Your task to perform on an android device: Open calendar and show me the third week of next month Image 0: 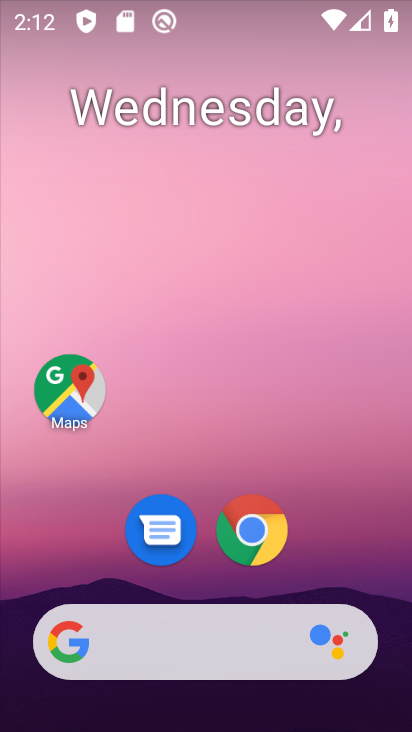
Step 0: drag from (219, 482) to (222, 10)
Your task to perform on an android device: Open calendar and show me the third week of next month Image 1: 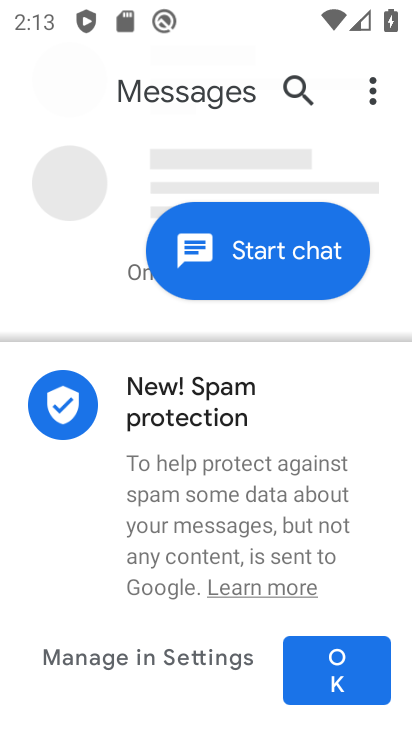
Step 1: press home button
Your task to perform on an android device: Open calendar and show me the third week of next month Image 2: 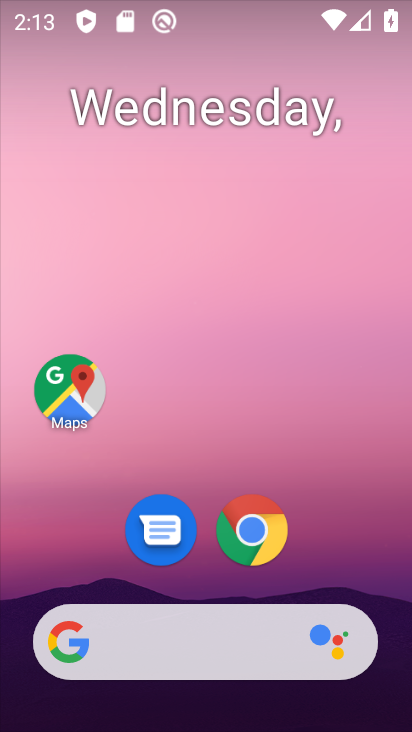
Step 2: click (229, 117)
Your task to perform on an android device: Open calendar and show me the third week of next month Image 3: 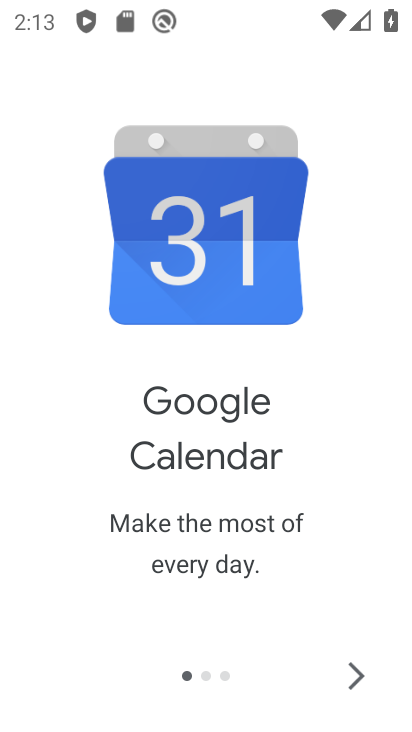
Step 3: click (366, 660)
Your task to perform on an android device: Open calendar and show me the third week of next month Image 4: 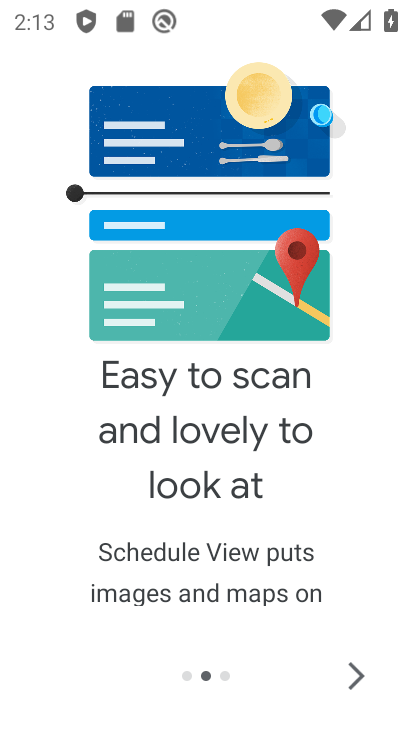
Step 4: click (366, 660)
Your task to perform on an android device: Open calendar and show me the third week of next month Image 5: 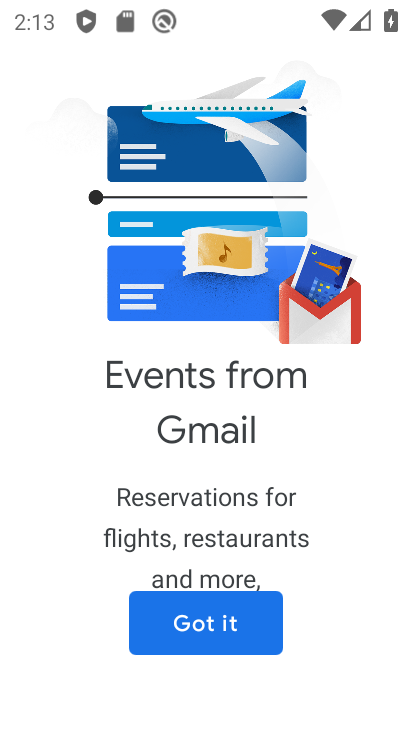
Step 5: click (185, 624)
Your task to perform on an android device: Open calendar and show me the third week of next month Image 6: 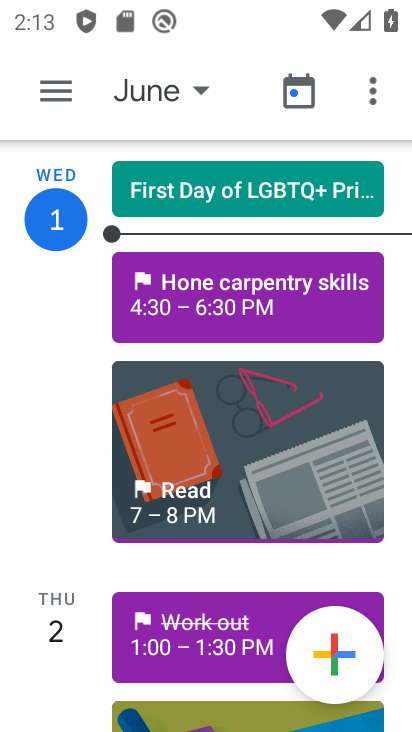
Step 6: click (168, 86)
Your task to perform on an android device: Open calendar and show me the third week of next month Image 7: 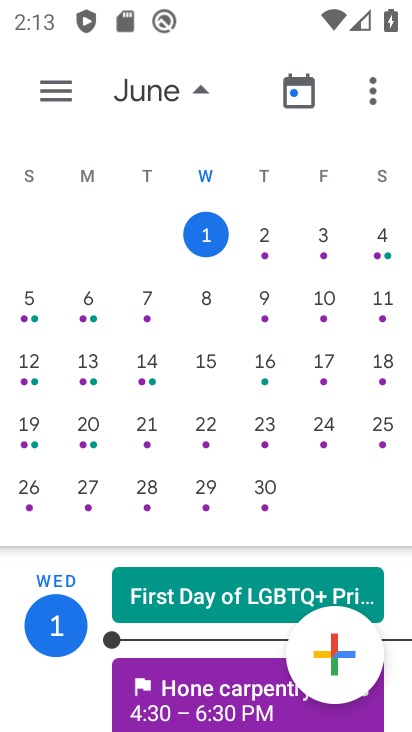
Step 7: drag from (381, 473) to (31, 442)
Your task to perform on an android device: Open calendar and show me the third week of next month Image 8: 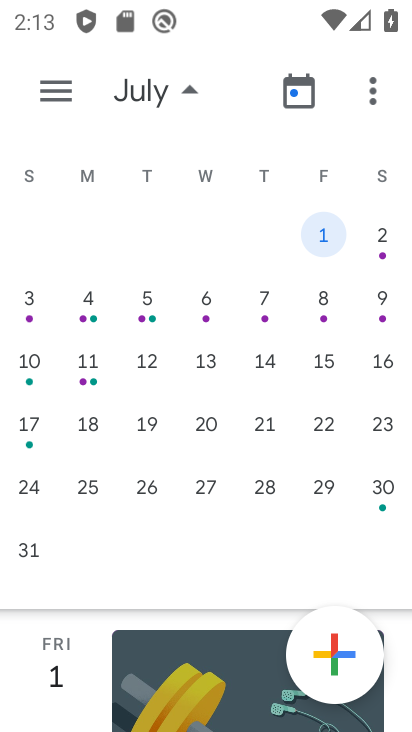
Step 8: click (328, 354)
Your task to perform on an android device: Open calendar and show me the third week of next month Image 9: 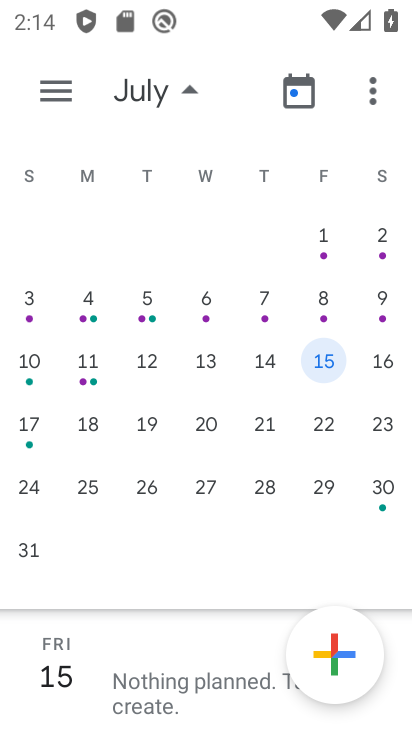
Step 9: task complete